Your task to perform on an android device: Open the stopwatch Image 0: 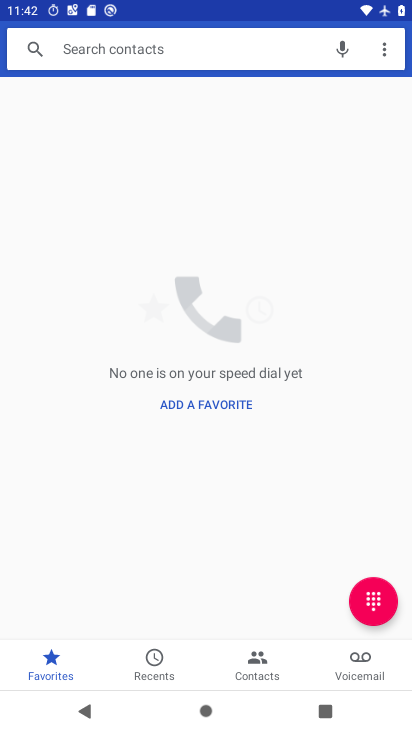
Step 0: press home button
Your task to perform on an android device: Open the stopwatch Image 1: 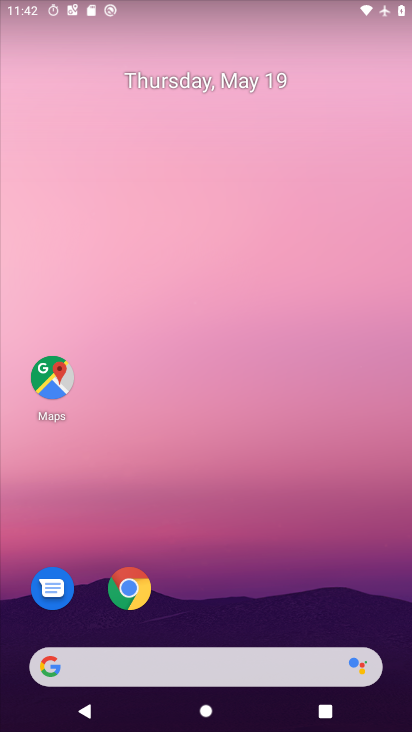
Step 1: drag from (169, 657) to (323, 139)
Your task to perform on an android device: Open the stopwatch Image 2: 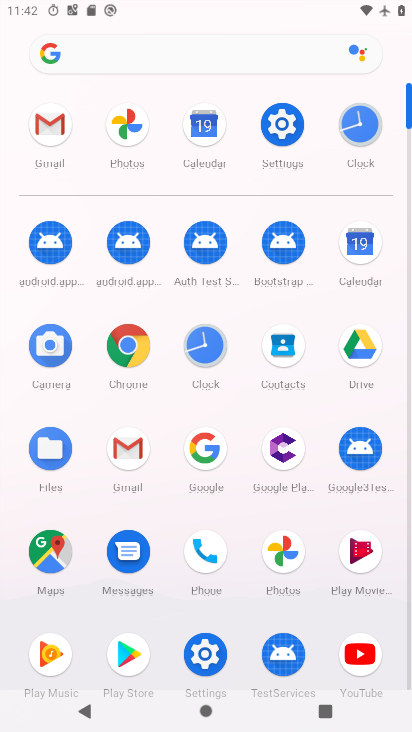
Step 2: click (199, 344)
Your task to perform on an android device: Open the stopwatch Image 3: 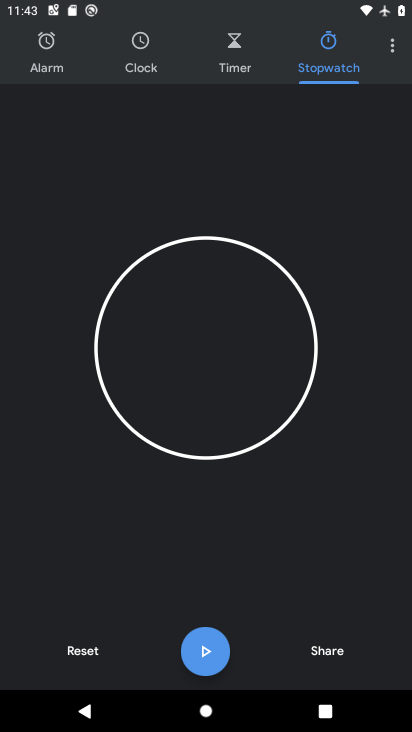
Step 3: task complete